Your task to perform on an android device: add a label to a message in the gmail app Image 0: 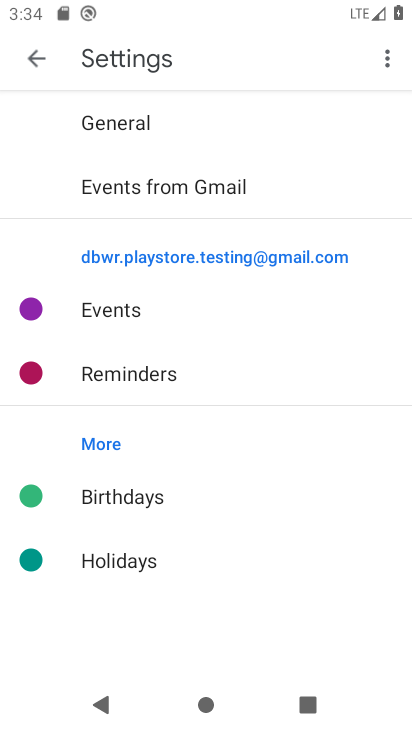
Step 0: press home button
Your task to perform on an android device: add a label to a message in the gmail app Image 1: 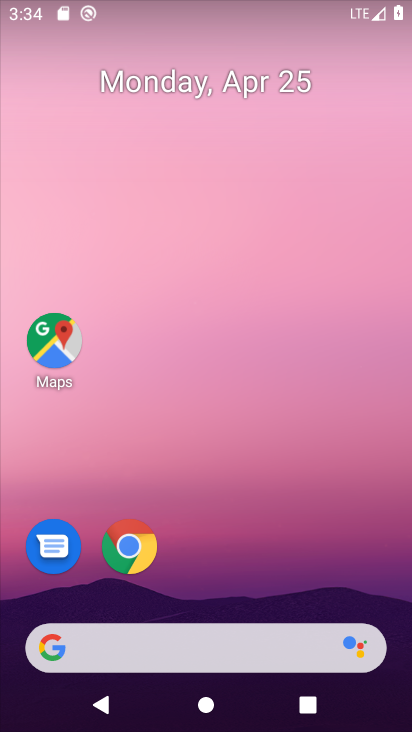
Step 1: drag from (242, 583) to (260, 1)
Your task to perform on an android device: add a label to a message in the gmail app Image 2: 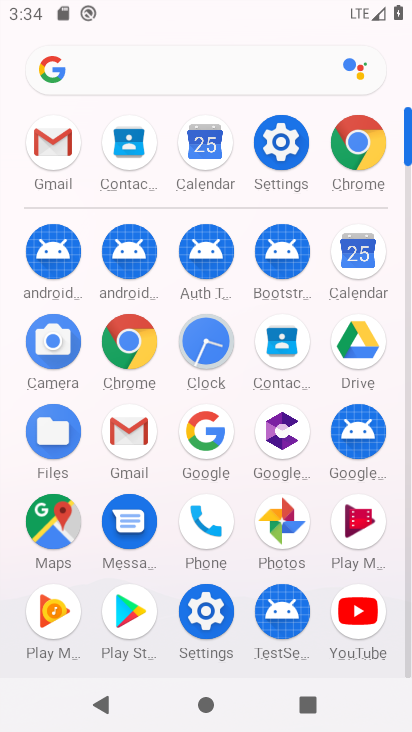
Step 2: click (123, 433)
Your task to perform on an android device: add a label to a message in the gmail app Image 3: 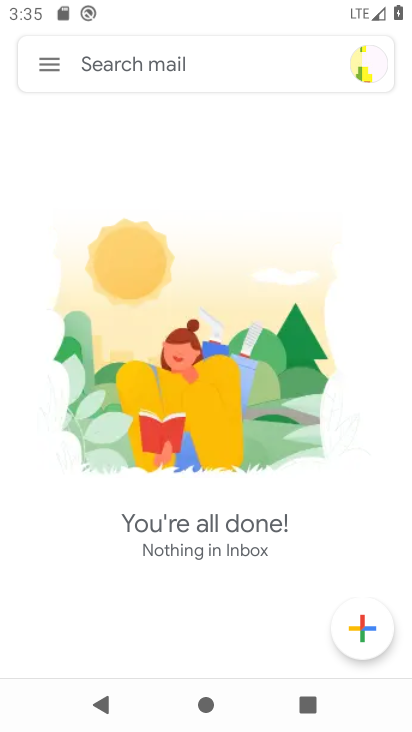
Step 3: click (42, 65)
Your task to perform on an android device: add a label to a message in the gmail app Image 4: 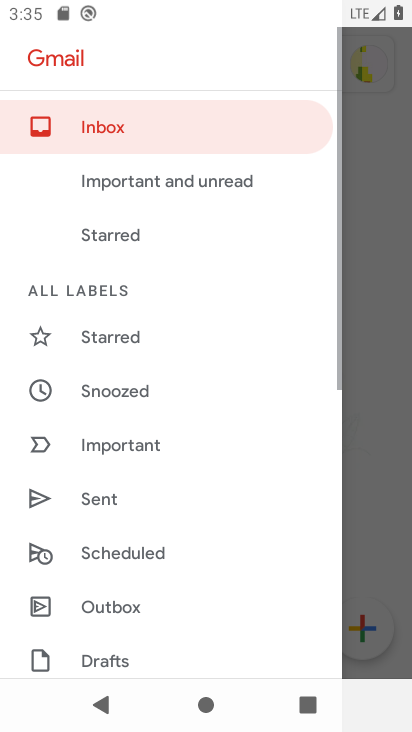
Step 4: drag from (109, 561) to (104, 196)
Your task to perform on an android device: add a label to a message in the gmail app Image 5: 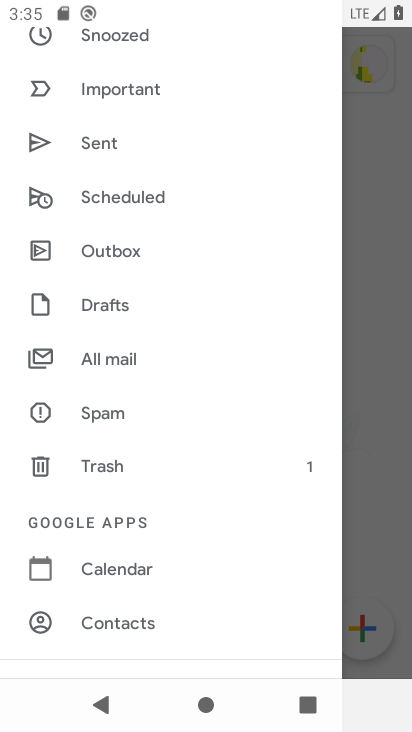
Step 5: click (154, 360)
Your task to perform on an android device: add a label to a message in the gmail app Image 6: 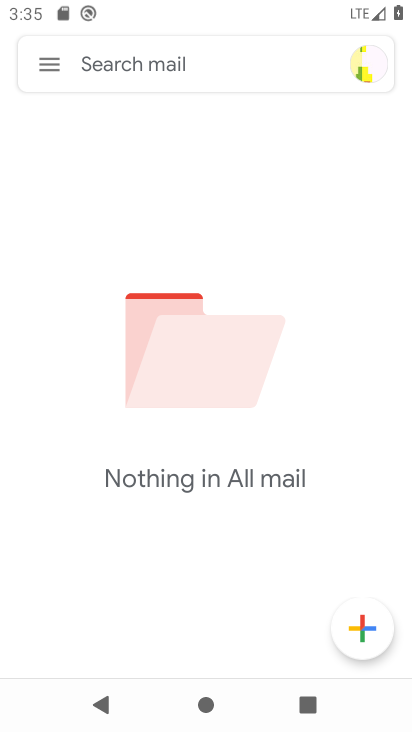
Step 6: task complete